Your task to perform on an android device: add a label to a message in the gmail app Image 0: 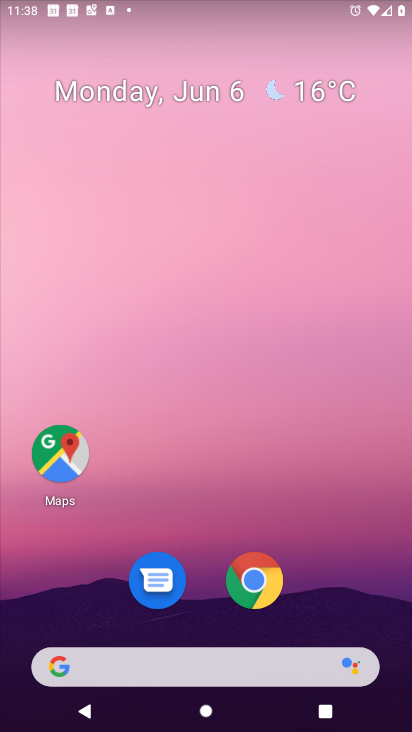
Step 0: drag from (316, 509) to (253, 18)
Your task to perform on an android device: add a label to a message in the gmail app Image 1: 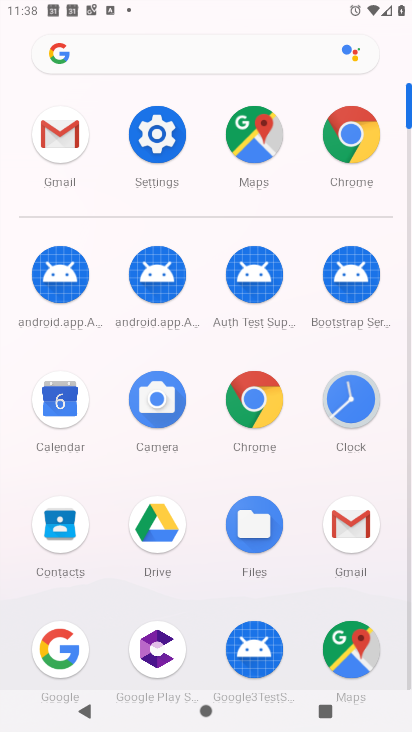
Step 1: click (353, 532)
Your task to perform on an android device: add a label to a message in the gmail app Image 2: 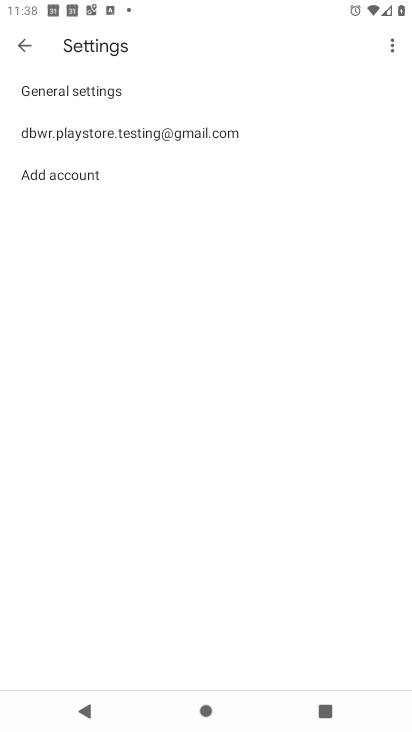
Step 2: click (25, 50)
Your task to perform on an android device: add a label to a message in the gmail app Image 3: 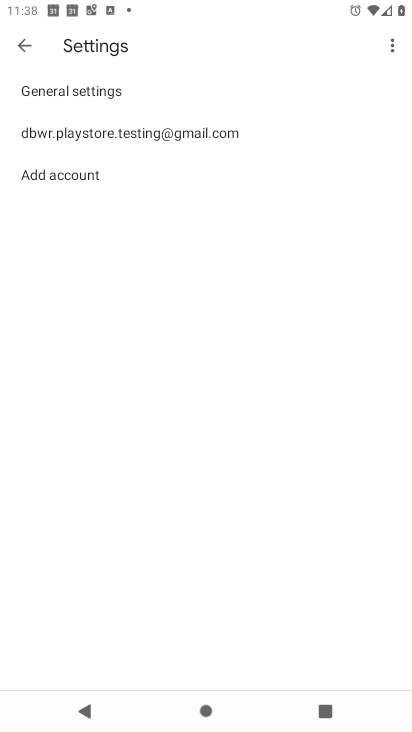
Step 3: click (25, 50)
Your task to perform on an android device: add a label to a message in the gmail app Image 4: 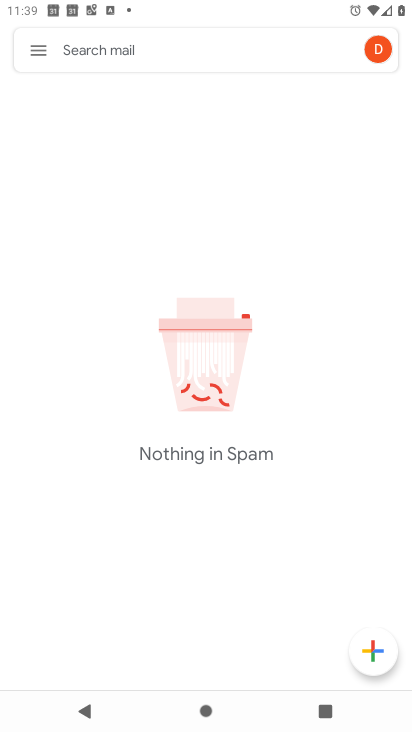
Step 4: click (25, 50)
Your task to perform on an android device: add a label to a message in the gmail app Image 5: 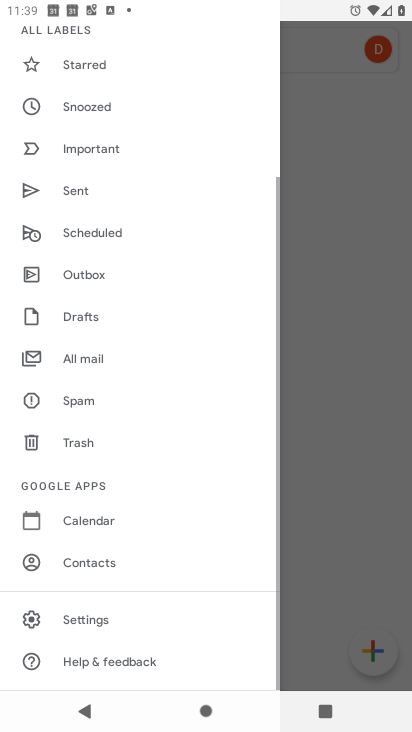
Step 5: drag from (113, 131) to (197, 680)
Your task to perform on an android device: add a label to a message in the gmail app Image 6: 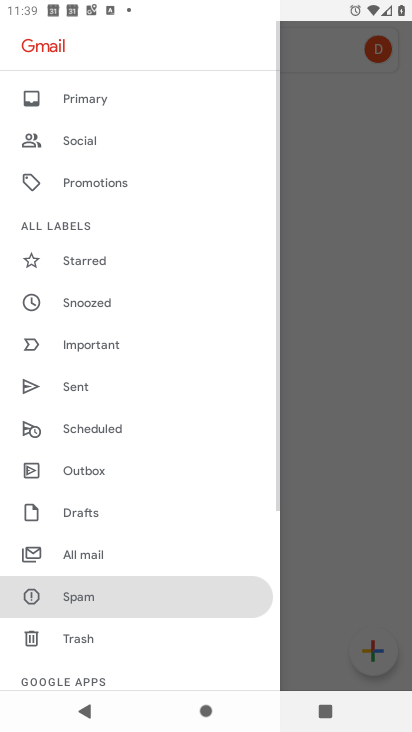
Step 6: drag from (208, 575) to (181, 240)
Your task to perform on an android device: add a label to a message in the gmail app Image 7: 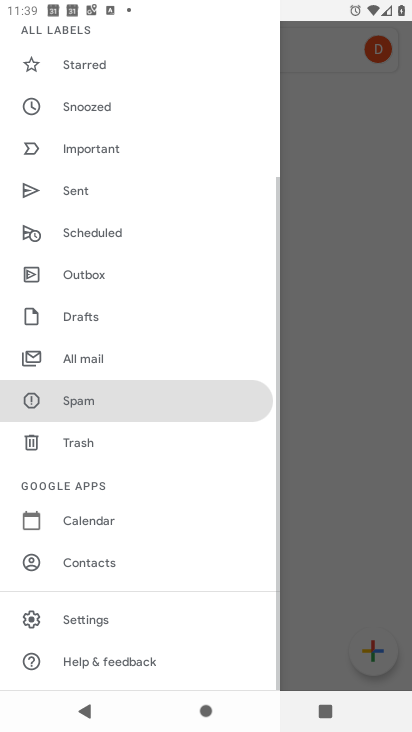
Step 7: click (113, 360)
Your task to perform on an android device: add a label to a message in the gmail app Image 8: 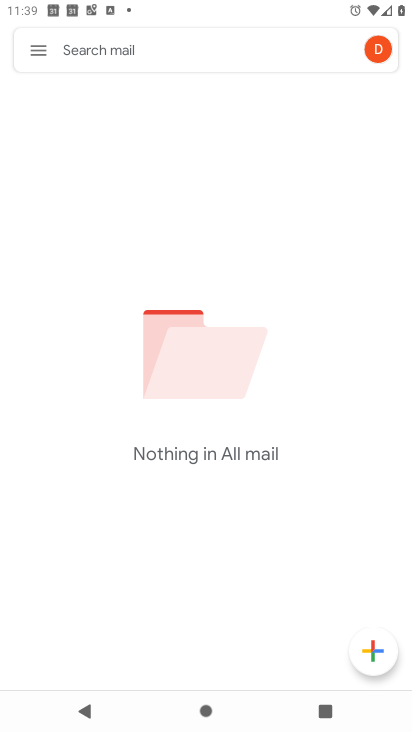
Step 8: task complete